Your task to perform on an android device: change the upload size in google photos Image 0: 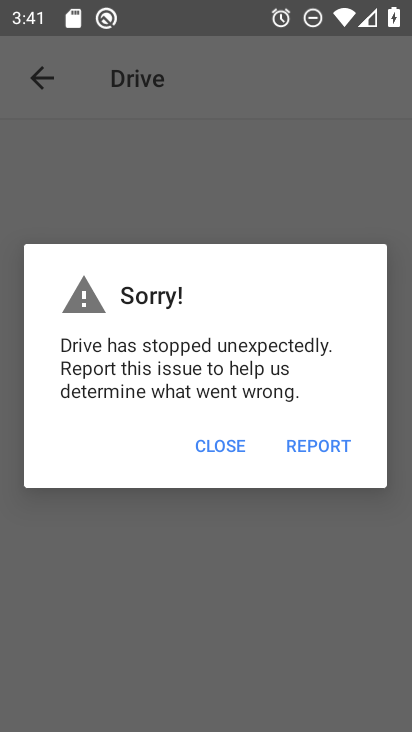
Step 0: press home button
Your task to perform on an android device: change the upload size in google photos Image 1: 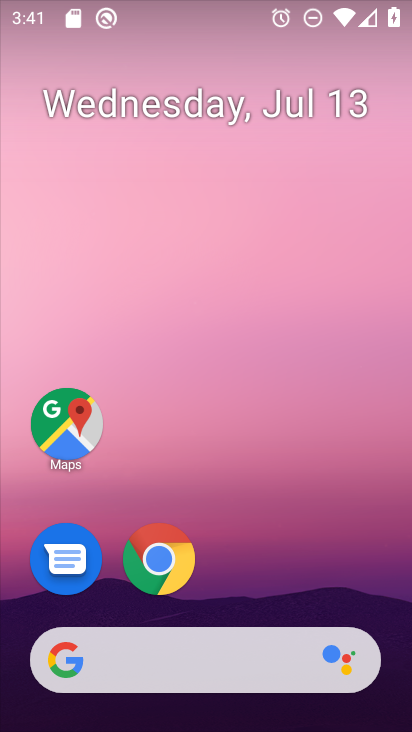
Step 1: drag from (353, 599) to (375, 110)
Your task to perform on an android device: change the upload size in google photos Image 2: 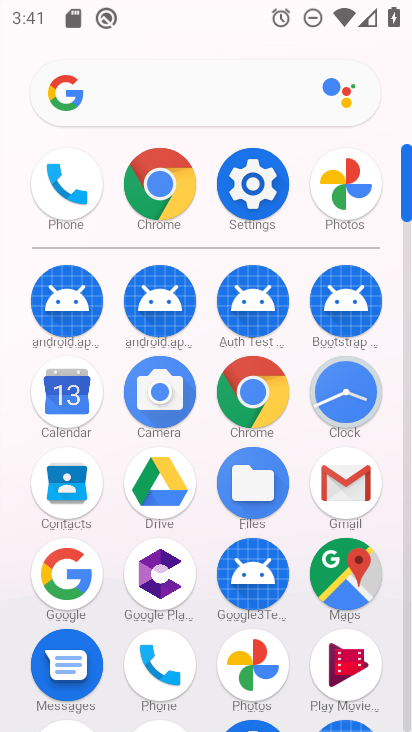
Step 2: click (342, 204)
Your task to perform on an android device: change the upload size in google photos Image 3: 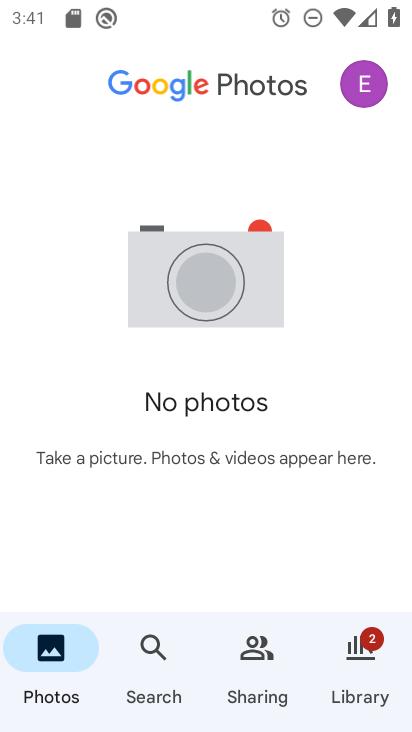
Step 3: click (365, 92)
Your task to perform on an android device: change the upload size in google photos Image 4: 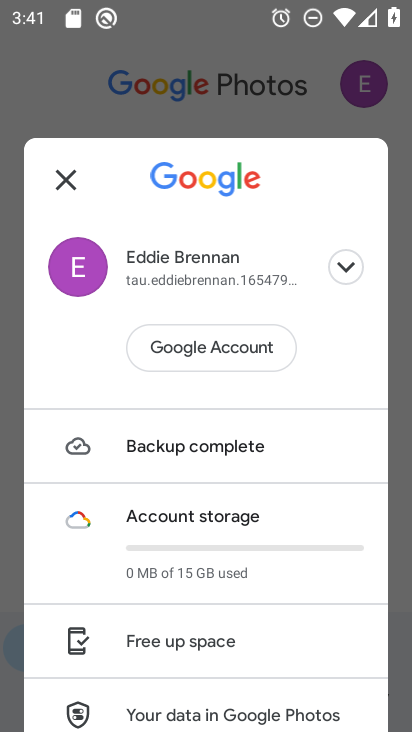
Step 4: drag from (314, 595) to (312, 474)
Your task to perform on an android device: change the upload size in google photos Image 5: 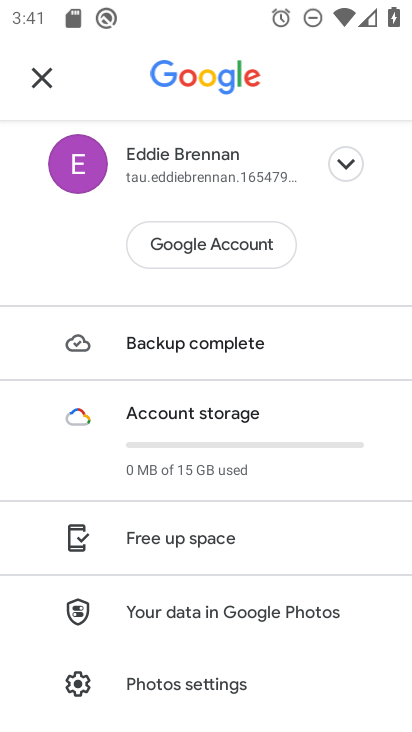
Step 5: drag from (314, 570) to (311, 446)
Your task to perform on an android device: change the upload size in google photos Image 6: 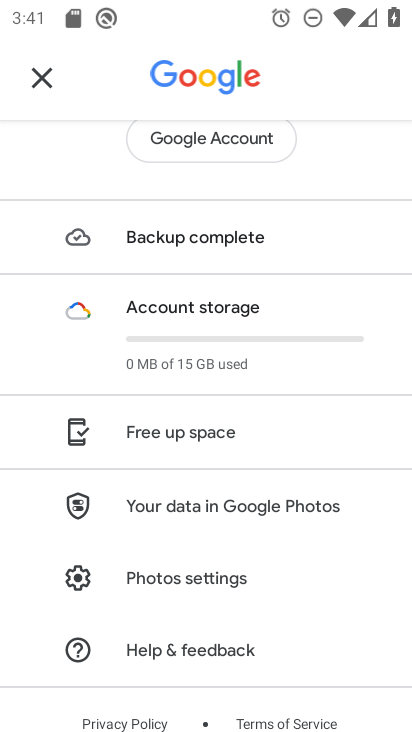
Step 6: drag from (312, 587) to (313, 450)
Your task to perform on an android device: change the upload size in google photos Image 7: 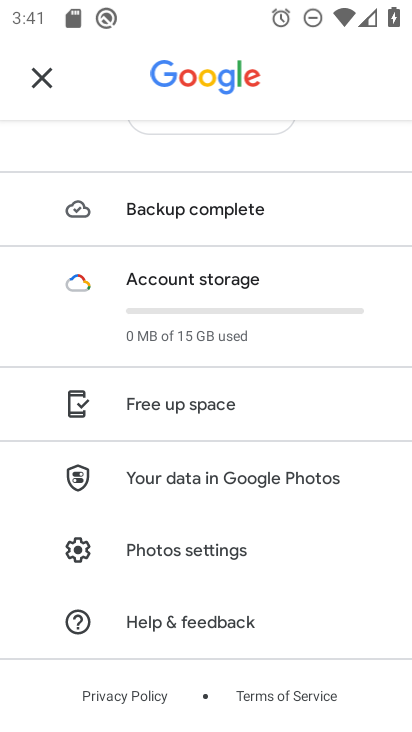
Step 7: click (274, 540)
Your task to perform on an android device: change the upload size in google photos Image 8: 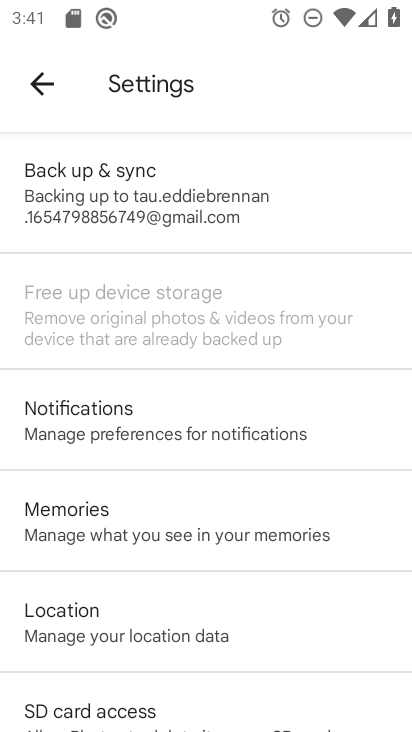
Step 8: click (251, 226)
Your task to perform on an android device: change the upload size in google photos Image 9: 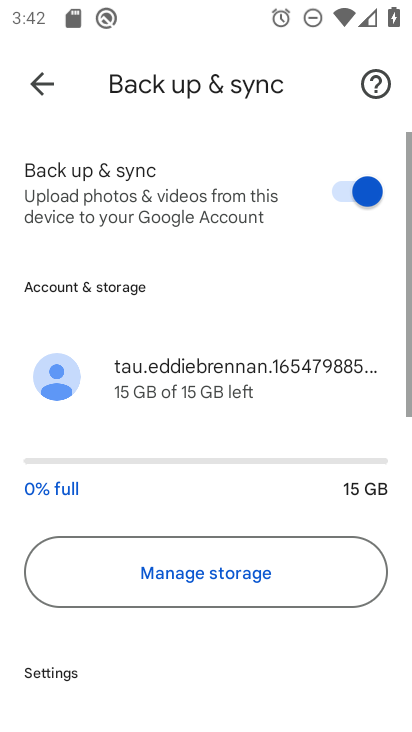
Step 9: drag from (261, 465) to (265, 317)
Your task to perform on an android device: change the upload size in google photos Image 10: 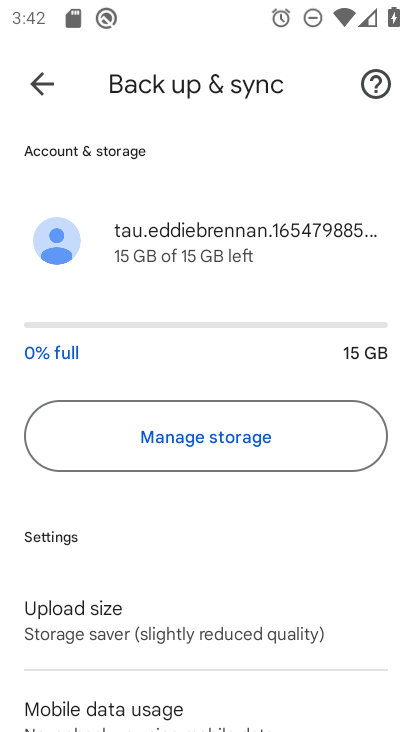
Step 10: drag from (261, 520) to (264, 324)
Your task to perform on an android device: change the upload size in google photos Image 11: 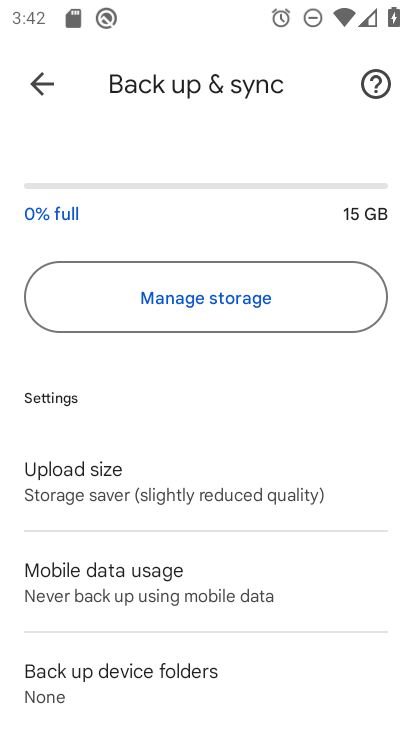
Step 11: click (234, 498)
Your task to perform on an android device: change the upload size in google photos Image 12: 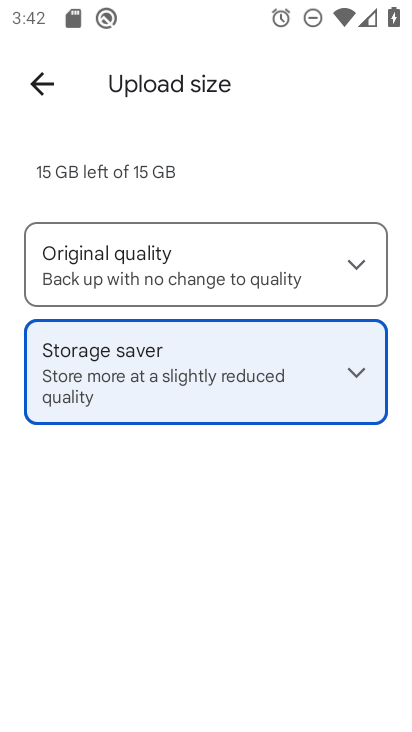
Step 12: click (204, 270)
Your task to perform on an android device: change the upload size in google photos Image 13: 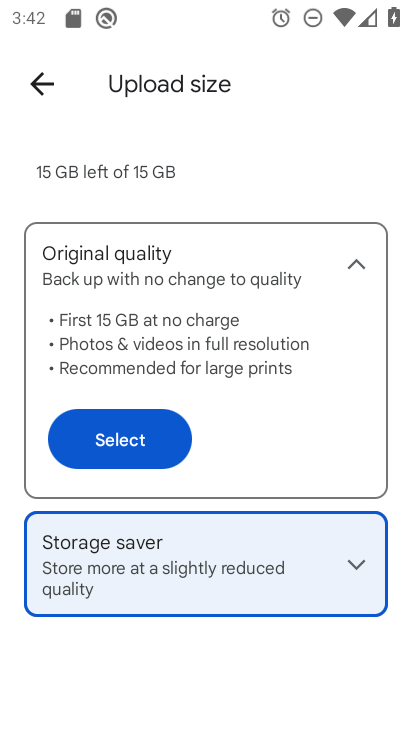
Step 13: click (151, 452)
Your task to perform on an android device: change the upload size in google photos Image 14: 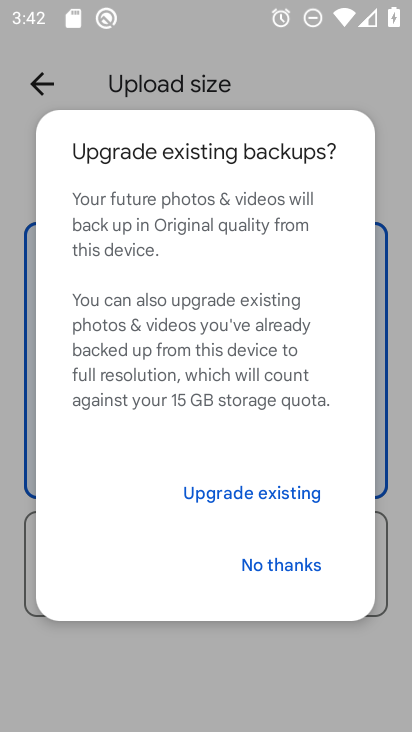
Step 14: click (229, 500)
Your task to perform on an android device: change the upload size in google photos Image 15: 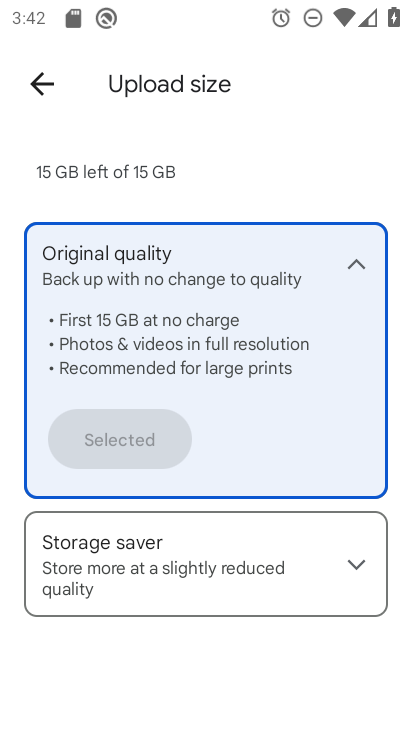
Step 15: task complete